Your task to perform on an android device: choose inbox layout in the gmail app Image 0: 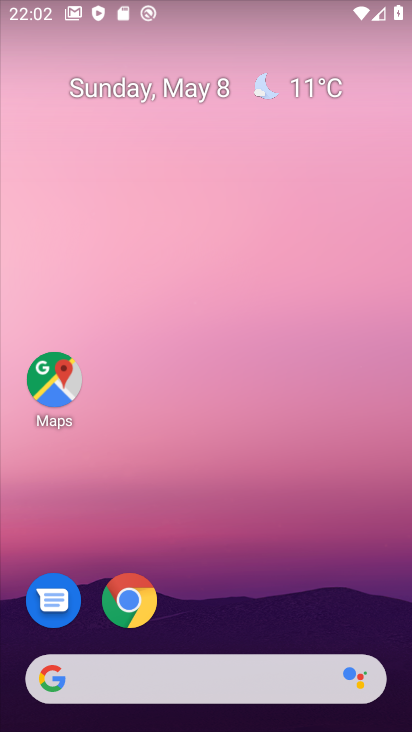
Step 0: drag from (200, 628) to (250, 28)
Your task to perform on an android device: choose inbox layout in the gmail app Image 1: 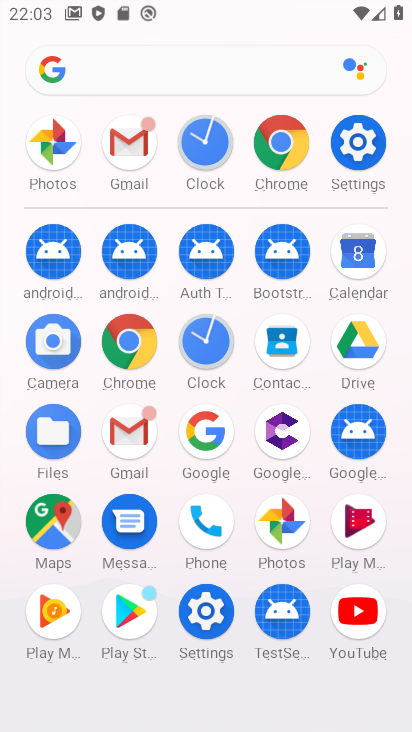
Step 1: click (116, 439)
Your task to perform on an android device: choose inbox layout in the gmail app Image 2: 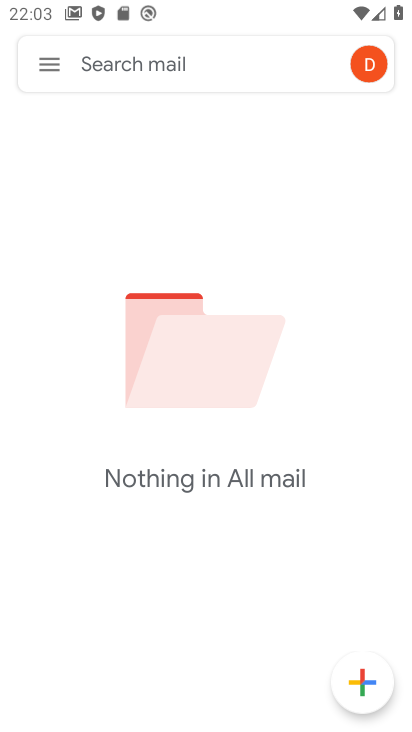
Step 2: click (44, 73)
Your task to perform on an android device: choose inbox layout in the gmail app Image 3: 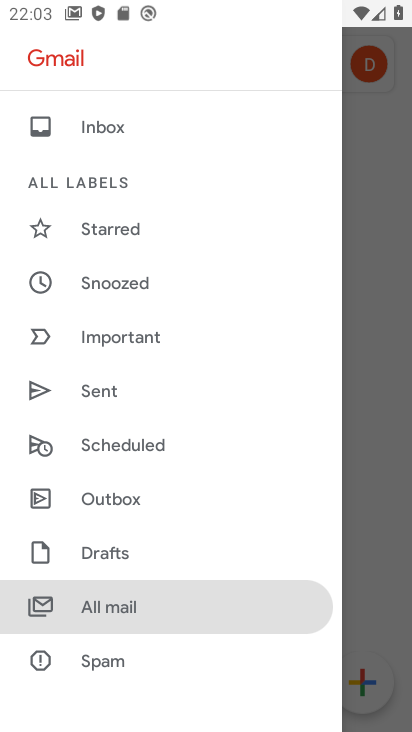
Step 3: drag from (156, 642) to (201, 102)
Your task to perform on an android device: choose inbox layout in the gmail app Image 4: 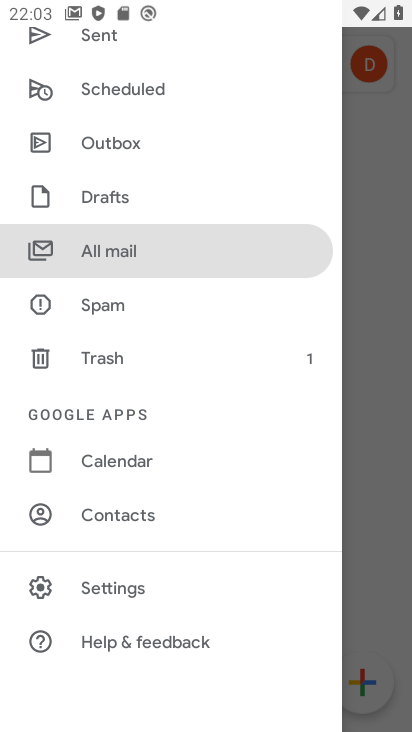
Step 4: click (140, 580)
Your task to perform on an android device: choose inbox layout in the gmail app Image 5: 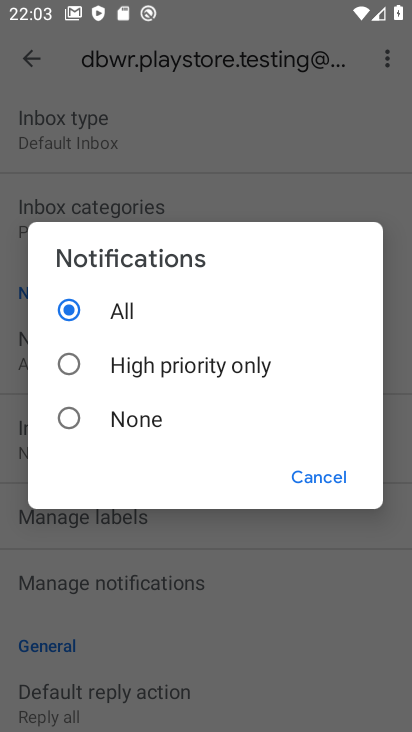
Step 5: click (331, 473)
Your task to perform on an android device: choose inbox layout in the gmail app Image 6: 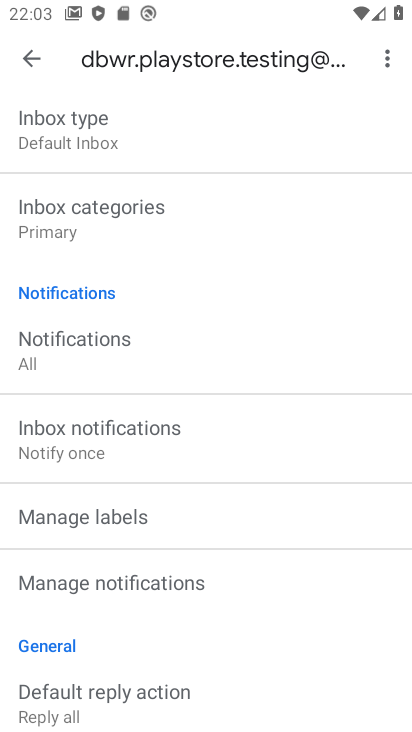
Step 6: click (152, 161)
Your task to perform on an android device: choose inbox layout in the gmail app Image 7: 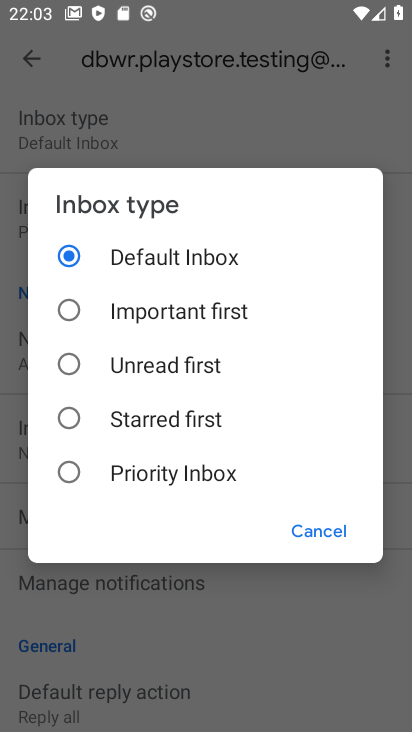
Step 7: click (198, 398)
Your task to perform on an android device: choose inbox layout in the gmail app Image 8: 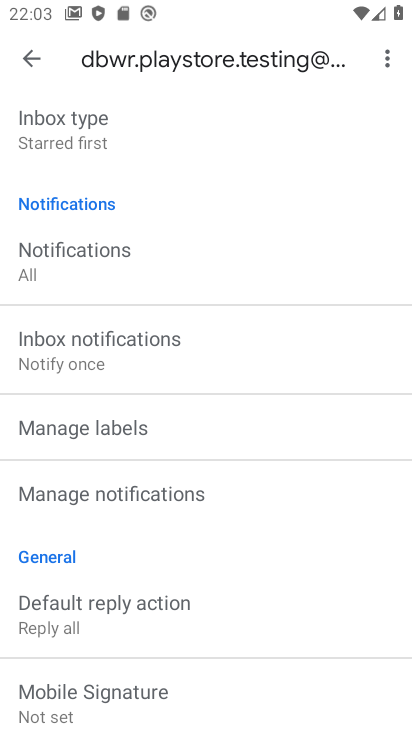
Step 8: task complete